Your task to perform on an android device: change keyboard looks Image 0: 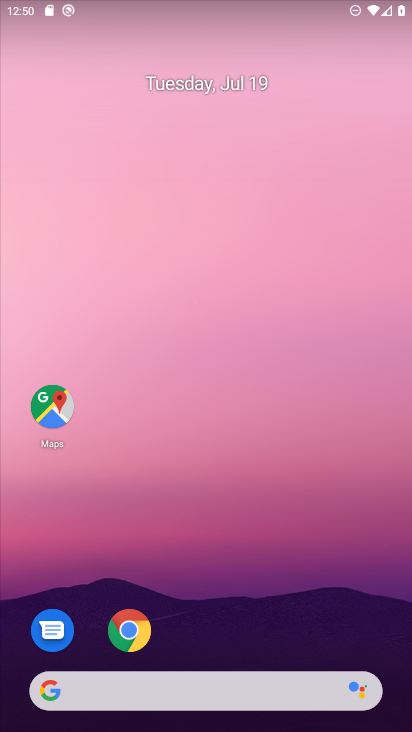
Step 0: press home button
Your task to perform on an android device: change keyboard looks Image 1: 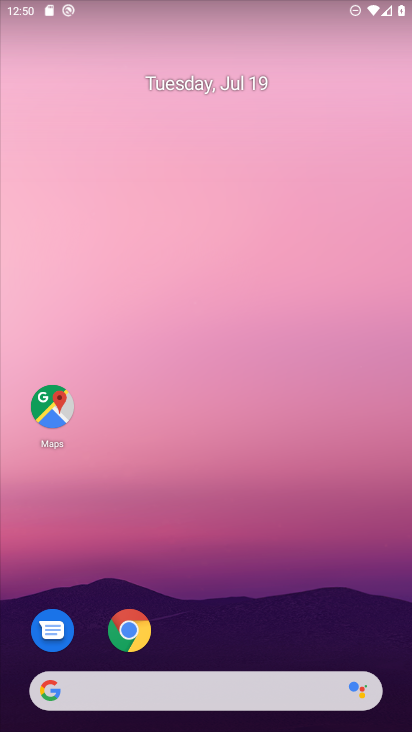
Step 1: drag from (144, 697) to (284, 143)
Your task to perform on an android device: change keyboard looks Image 2: 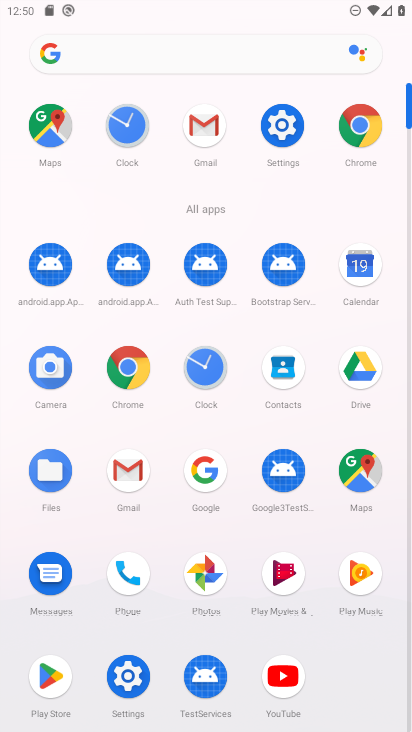
Step 2: click (288, 124)
Your task to perform on an android device: change keyboard looks Image 3: 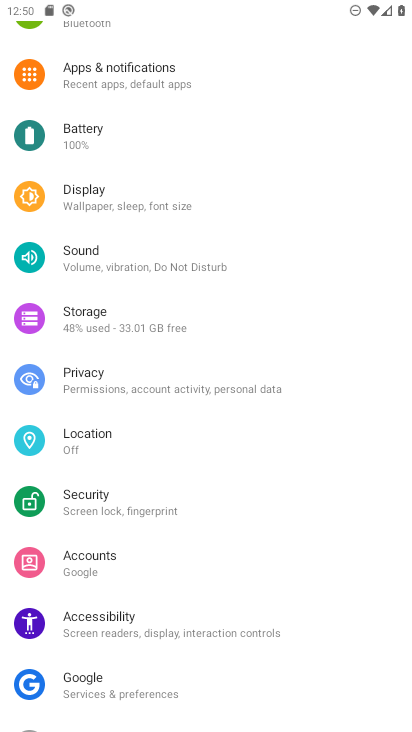
Step 3: drag from (245, 597) to (367, 110)
Your task to perform on an android device: change keyboard looks Image 4: 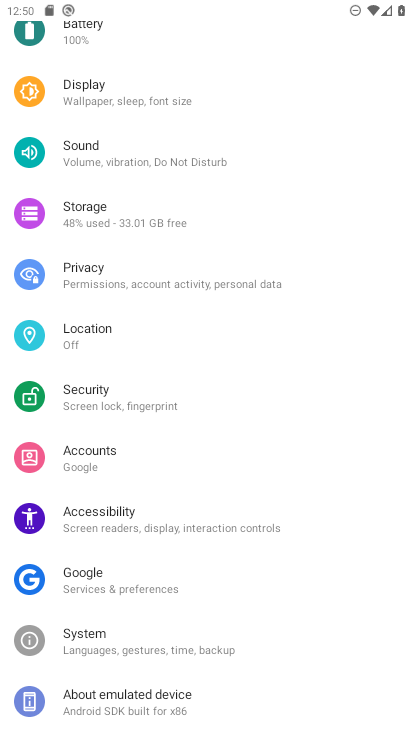
Step 4: click (125, 649)
Your task to perform on an android device: change keyboard looks Image 5: 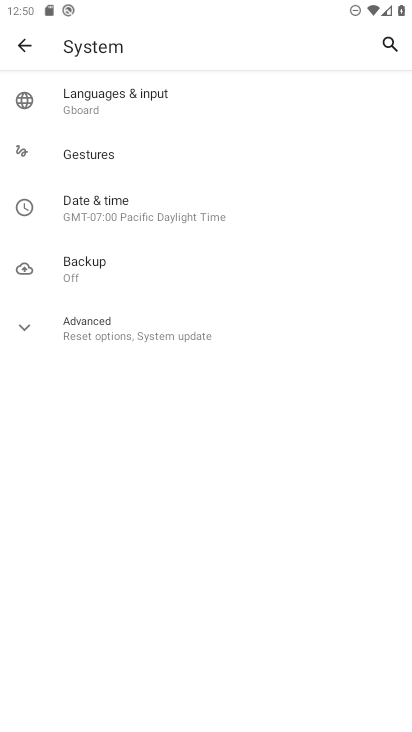
Step 5: click (139, 94)
Your task to perform on an android device: change keyboard looks Image 6: 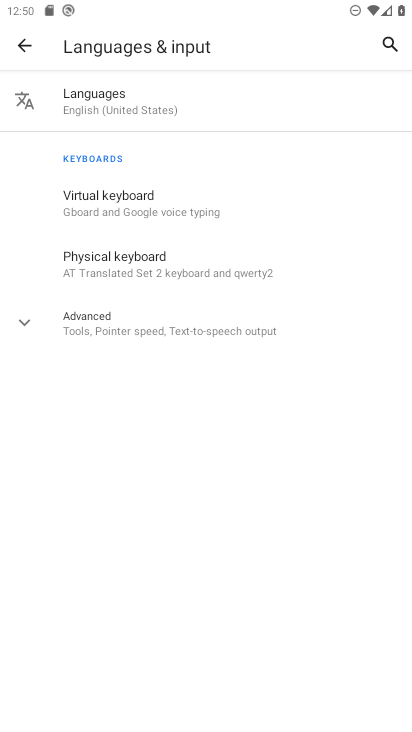
Step 6: click (113, 202)
Your task to perform on an android device: change keyboard looks Image 7: 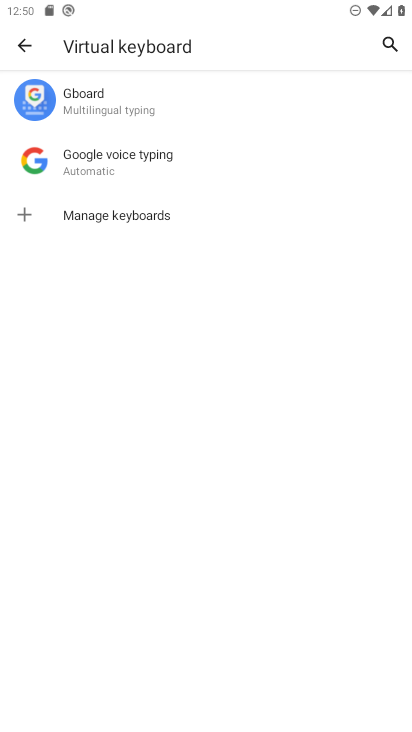
Step 7: click (102, 108)
Your task to perform on an android device: change keyboard looks Image 8: 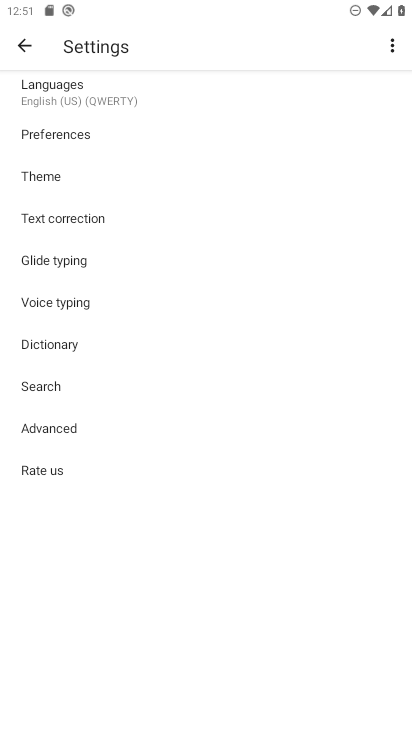
Step 8: click (56, 170)
Your task to perform on an android device: change keyboard looks Image 9: 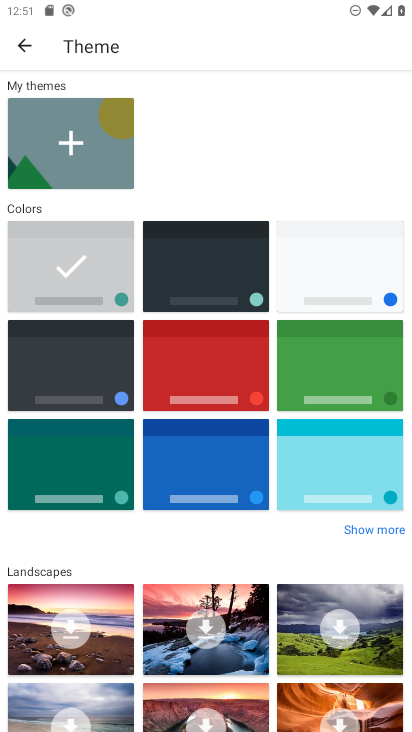
Step 9: click (208, 476)
Your task to perform on an android device: change keyboard looks Image 10: 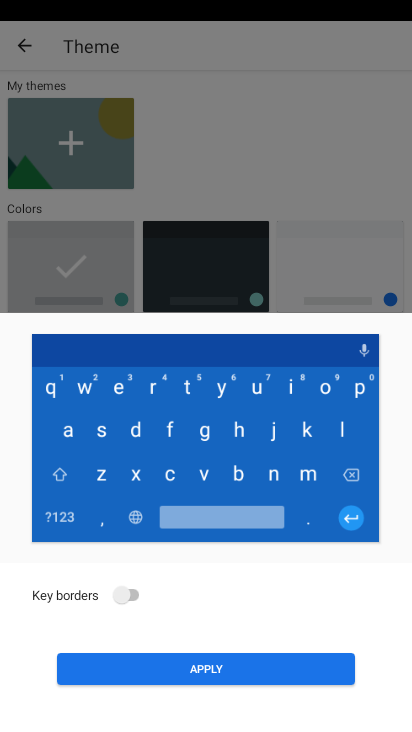
Step 10: click (191, 666)
Your task to perform on an android device: change keyboard looks Image 11: 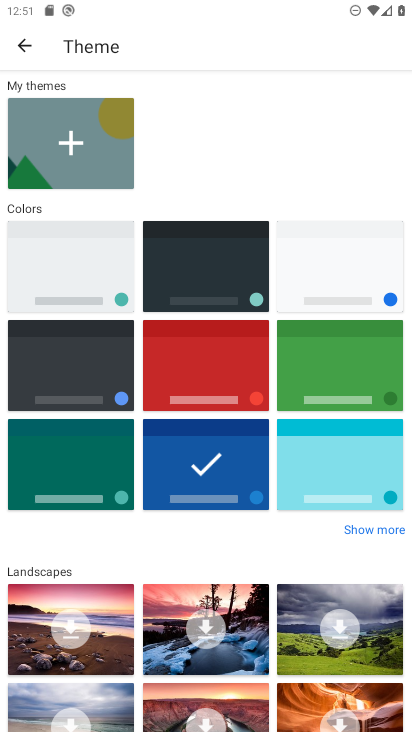
Step 11: task complete